Your task to perform on an android device: add a label to a message in the gmail app Image 0: 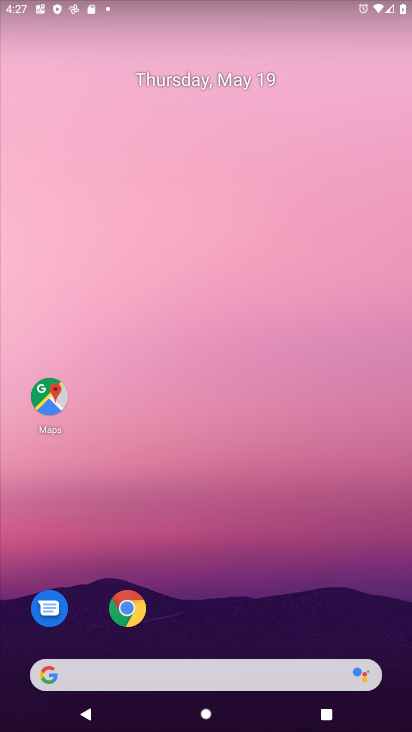
Step 0: drag from (259, 602) to (261, 114)
Your task to perform on an android device: add a label to a message in the gmail app Image 1: 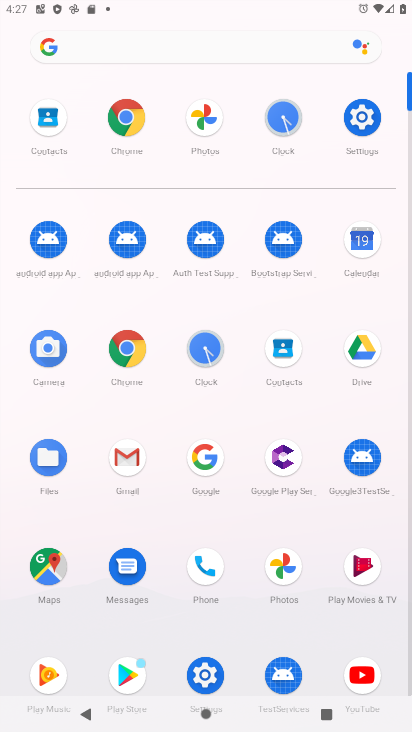
Step 1: click (136, 455)
Your task to perform on an android device: add a label to a message in the gmail app Image 2: 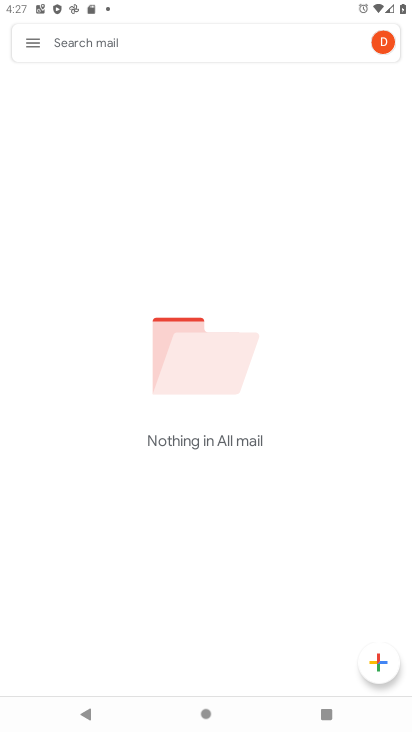
Step 2: click (28, 38)
Your task to perform on an android device: add a label to a message in the gmail app Image 3: 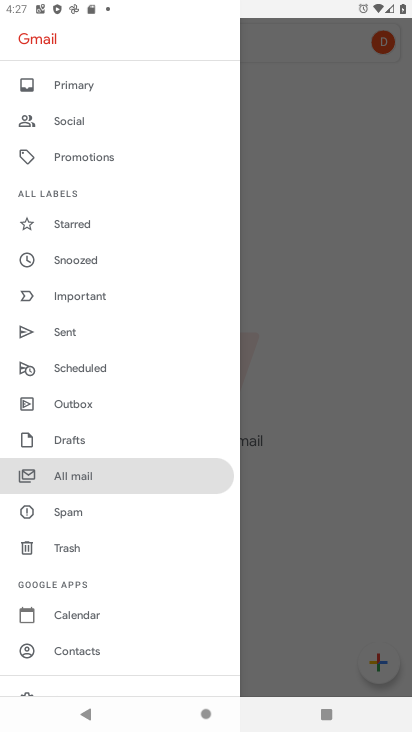
Step 3: click (104, 481)
Your task to perform on an android device: add a label to a message in the gmail app Image 4: 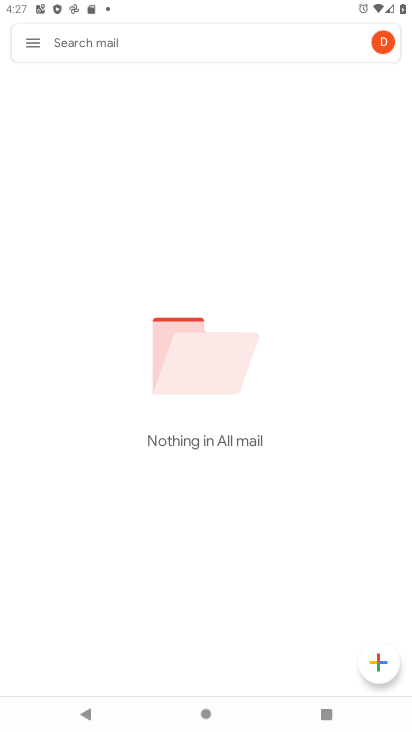
Step 4: task complete